Your task to perform on an android device: set default search engine in the chrome app Image 0: 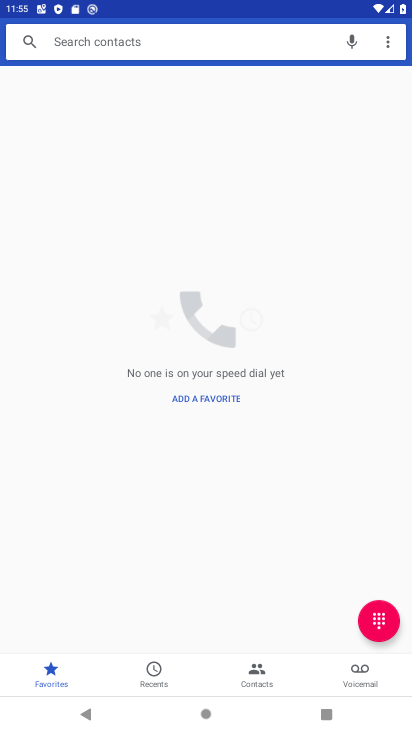
Step 0: press home button
Your task to perform on an android device: set default search engine in the chrome app Image 1: 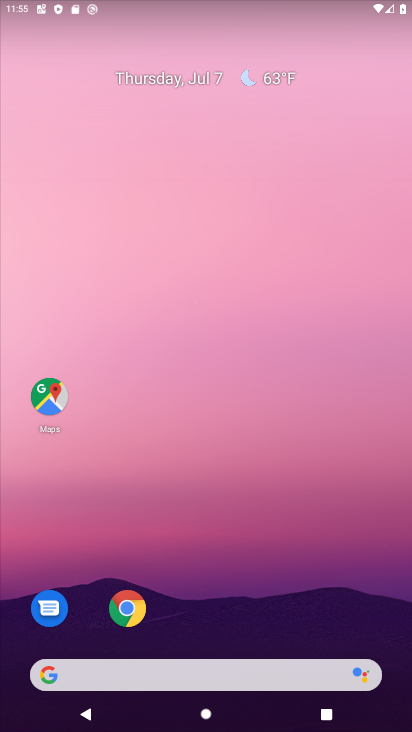
Step 1: click (117, 609)
Your task to perform on an android device: set default search engine in the chrome app Image 2: 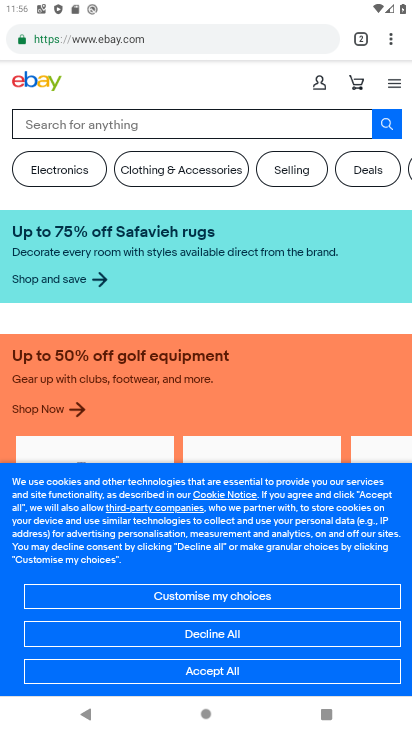
Step 2: click (389, 38)
Your task to perform on an android device: set default search engine in the chrome app Image 3: 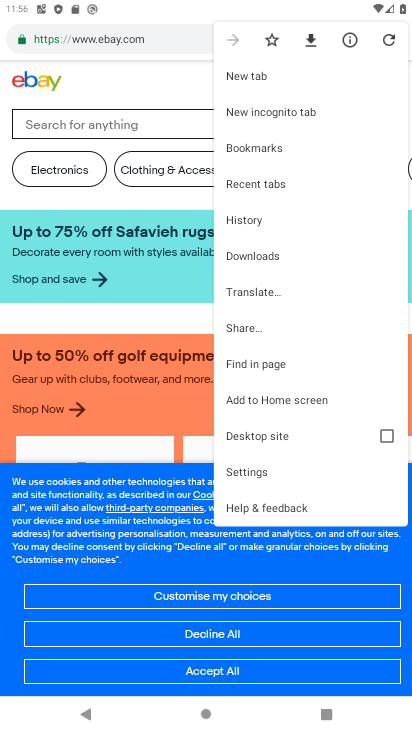
Step 3: click (239, 478)
Your task to perform on an android device: set default search engine in the chrome app Image 4: 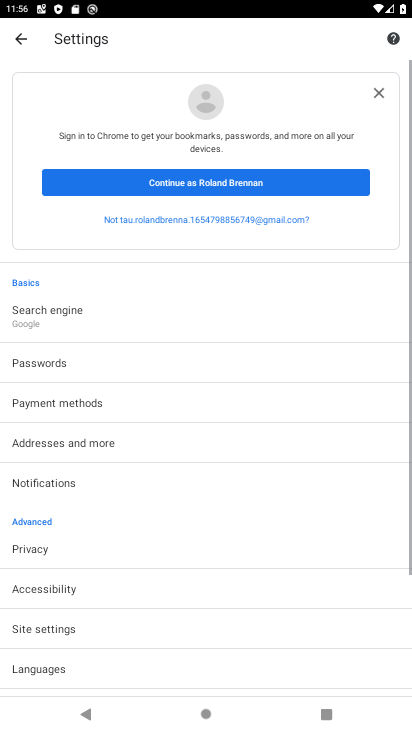
Step 4: click (99, 301)
Your task to perform on an android device: set default search engine in the chrome app Image 5: 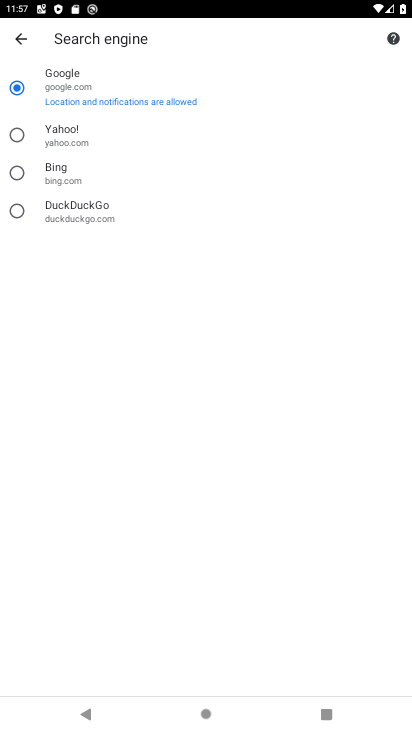
Step 5: task complete